Your task to perform on an android device: see tabs open on other devices in the chrome app Image 0: 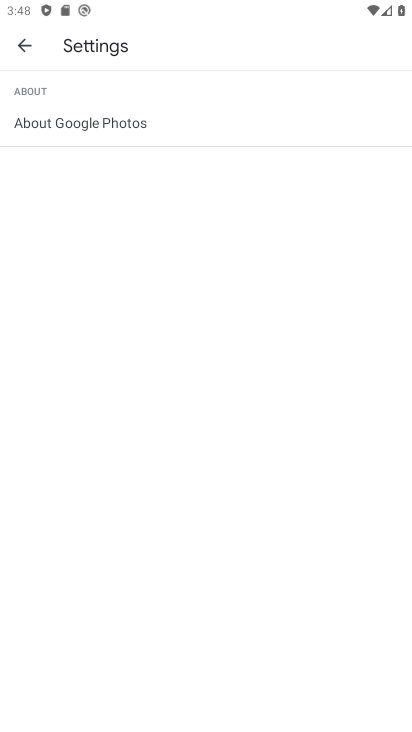
Step 0: press home button
Your task to perform on an android device: see tabs open on other devices in the chrome app Image 1: 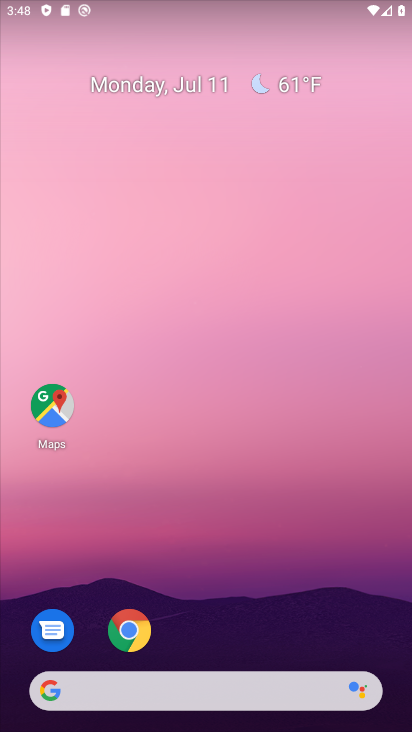
Step 1: drag from (202, 671) to (289, 230)
Your task to perform on an android device: see tabs open on other devices in the chrome app Image 2: 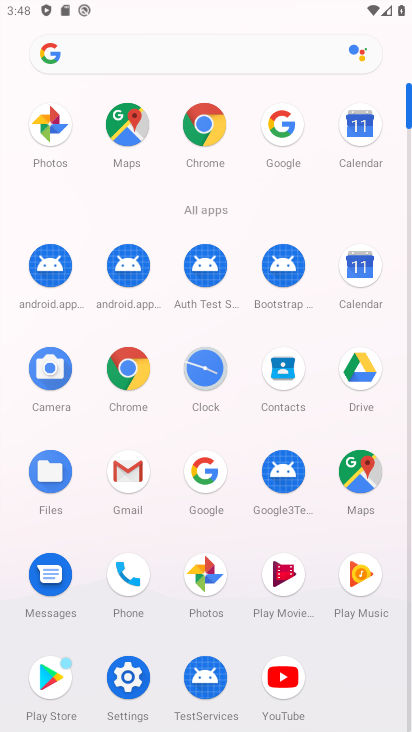
Step 2: click (122, 370)
Your task to perform on an android device: see tabs open on other devices in the chrome app Image 3: 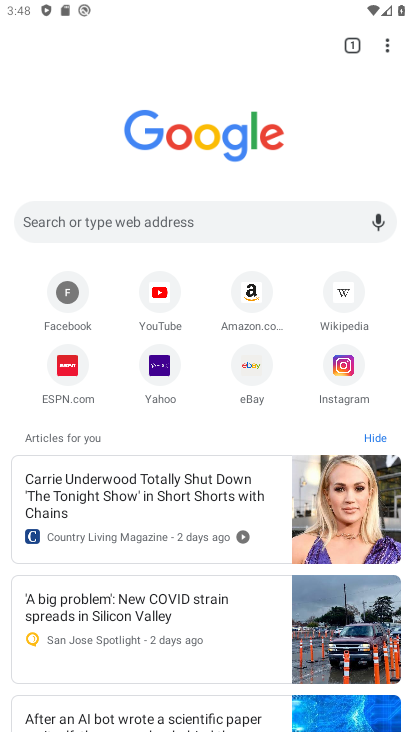
Step 3: task complete